Your task to perform on an android device: toggle data saver in the chrome app Image 0: 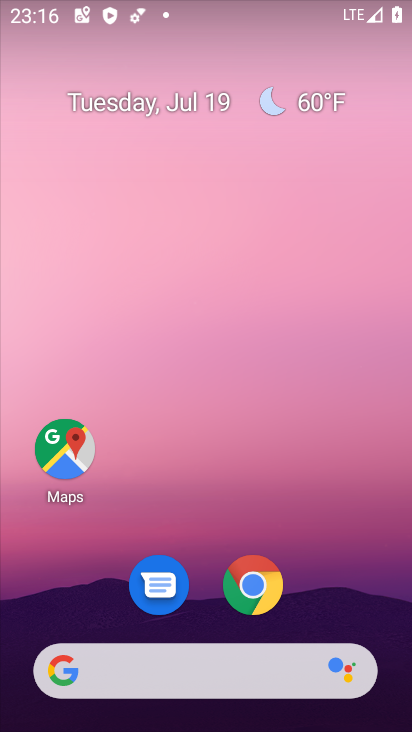
Step 0: click (276, 579)
Your task to perform on an android device: toggle data saver in the chrome app Image 1: 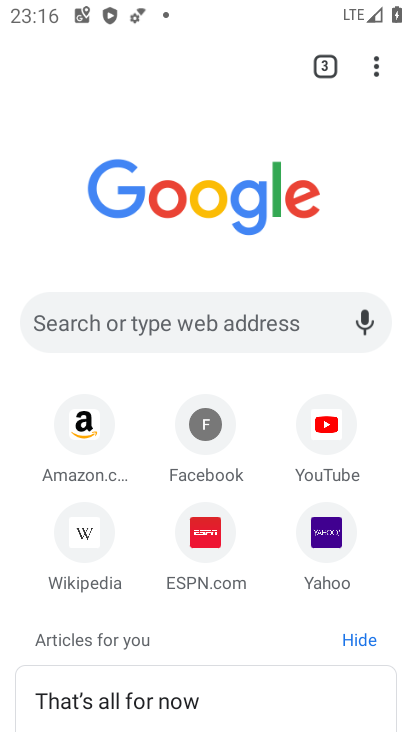
Step 1: click (376, 64)
Your task to perform on an android device: toggle data saver in the chrome app Image 2: 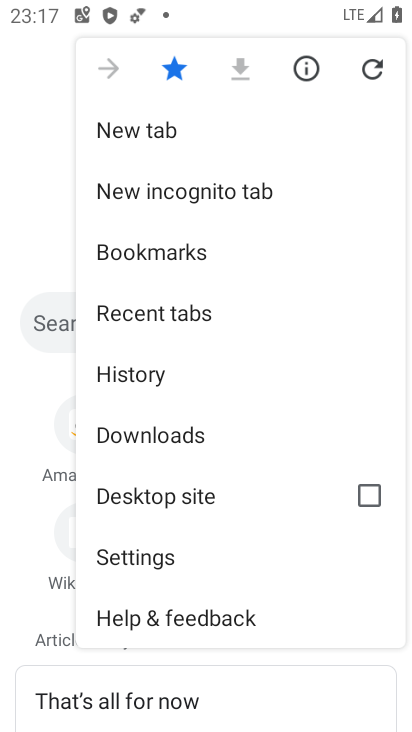
Step 2: click (185, 559)
Your task to perform on an android device: toggle data saver in the chrome app Image 3: 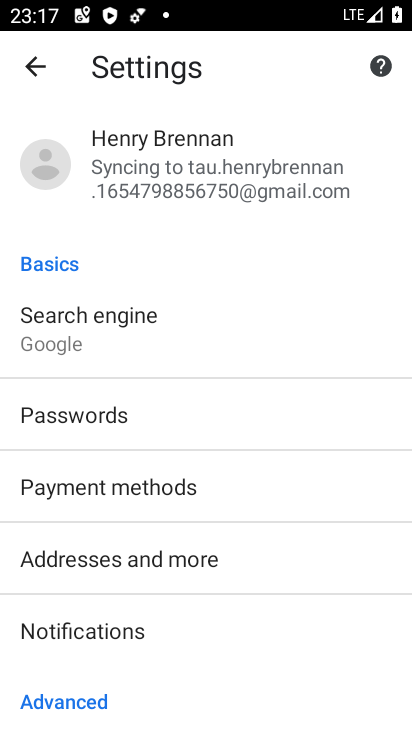
Step 3: drag from (279, 566) to (268, 198)
Your task to perform on an android device: toggle data saver in the chrome app Image 4: 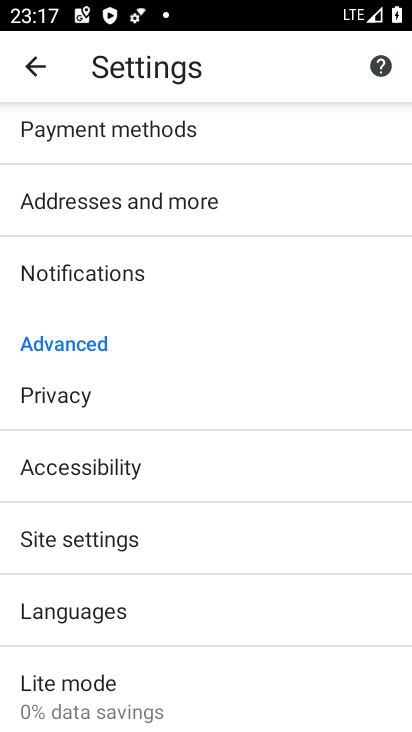
Step 4: click (185, 700)
Your task to perform on an android device: toggle data saver in the chrome app Image 5: 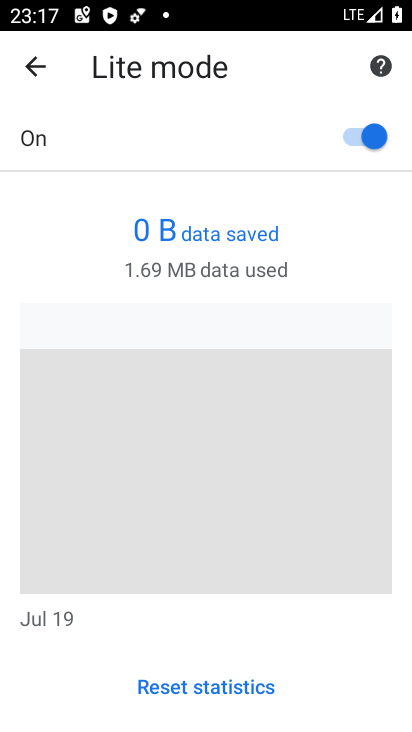
Step 5: click (358, 129)
Your task to perform on an android device: toggle data saver in the chrome app Image 6: 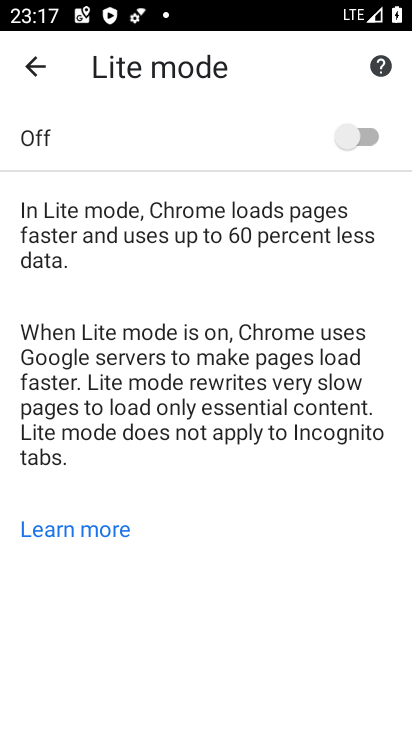
Step 6: task complete